Your task to perform on an android device: toggle notification dots Image 0: 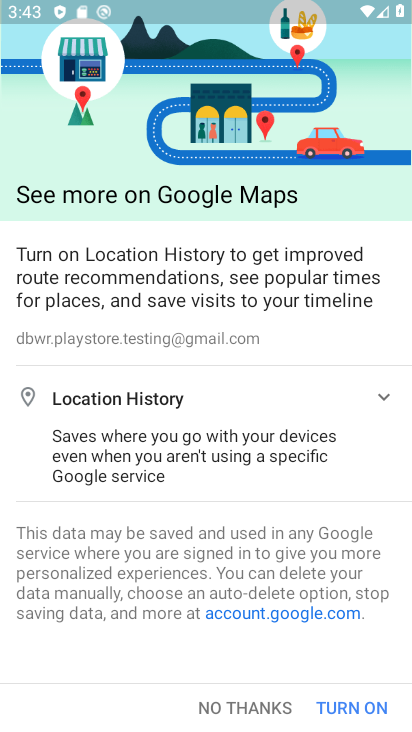
Step 0: press home button
Your task to perform on an android device: toggle notification dots Image 1: 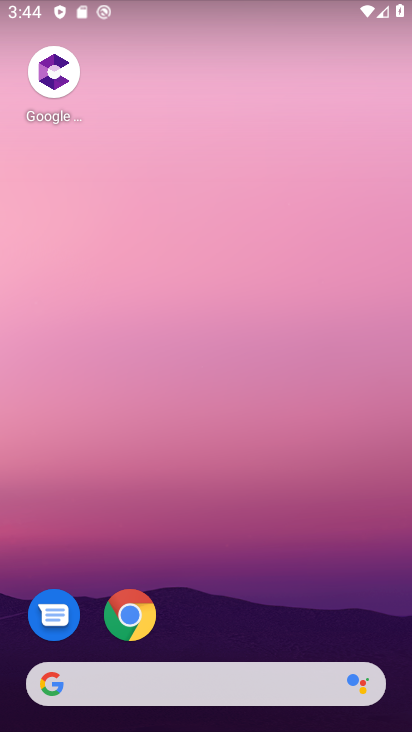
Step 1: drag from (217, 721) to (222, 167)
Your task to perform on an android device: toggle notification dots Image 2: 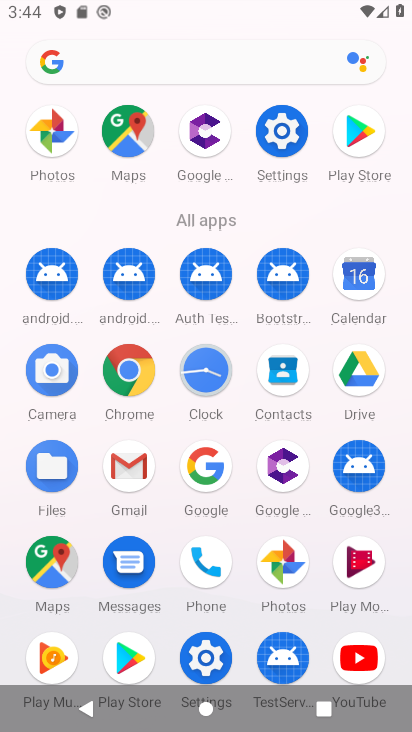
Step 2: click (282, 134)
Your task to perform on an android device: toggle notification dots Image 3: 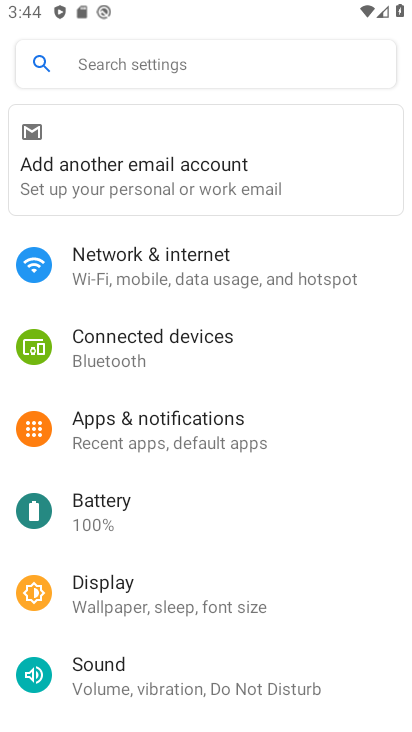
Step 3: click (137, 431)
Your task to perform on an android device: toggle notification dots Image 4: 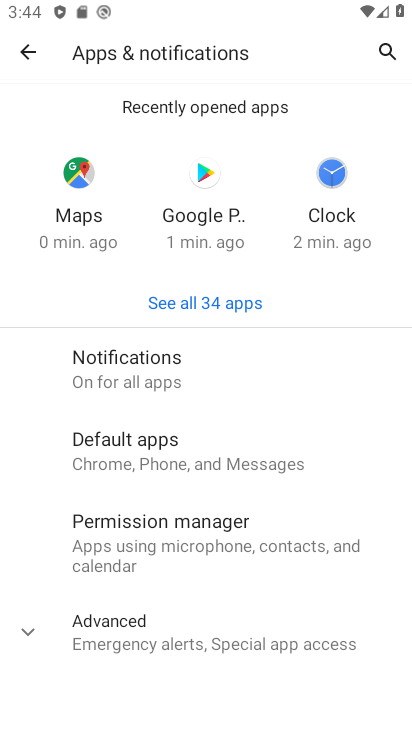
Step 4: drag from (177, 618) to (176, 511)
Your task to perform on an android device: toggle notification dots Image 5: 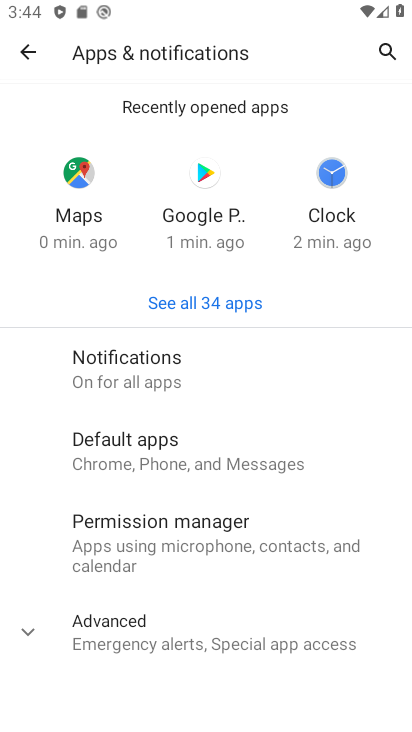
Step 5: click (144, 360)
Your task to perform on an android device: toggle notification dots Image 6: 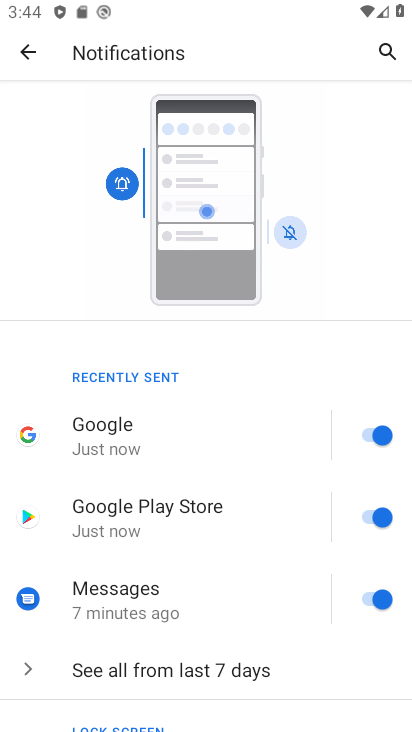
Step 6: drag from (142, 664) to (152, 260)
Your task to perform on an android device: toggle notification dots Image 7: 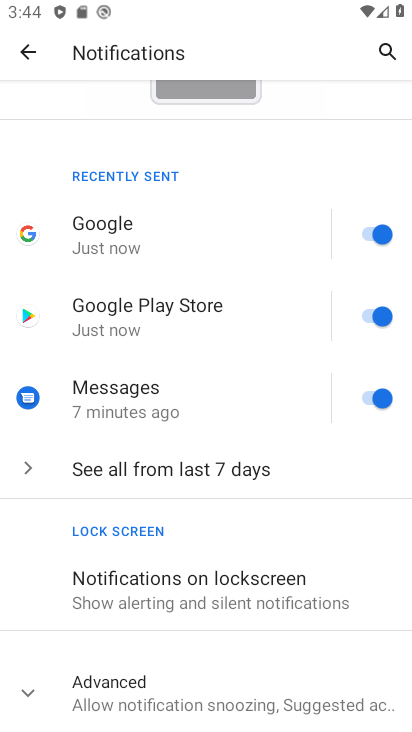
Step 7: drag from (184, 670) to (181, 366)
Your task to perform on an android device: toggle notification dots Image 8: 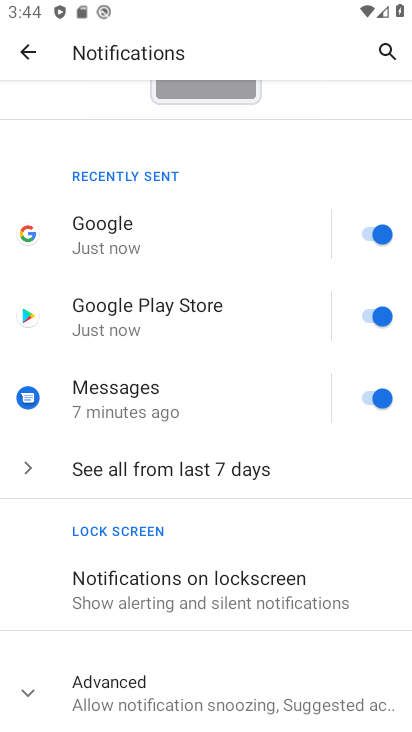
Step 8: click (114, 692)
Your task to perform on an android device: toggle notification dots Image 9: 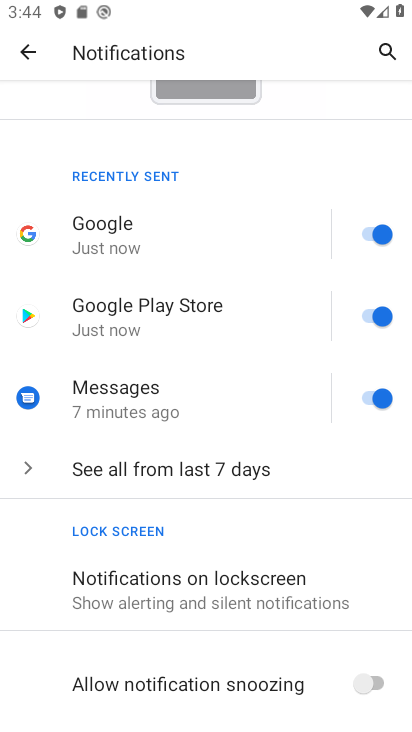
Step 9: drag from (211, 661) to (218, 302)
Your task to perform on an android device: toggle notification dots Image 10: 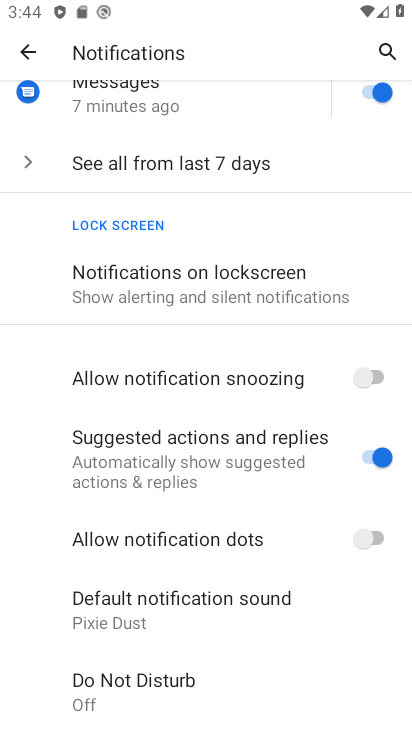
Step 10: click (379, 533)
Your task to perform on an android device: toggle notification dots Image 11: 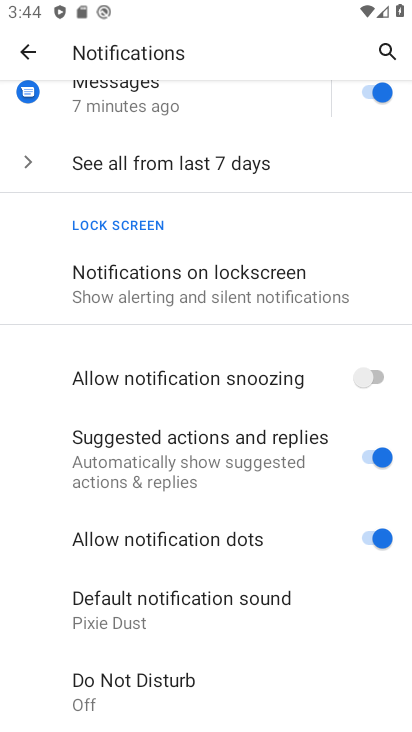
Step 11: task complete